Your task to perform on an android device: Go to notification settings Image 0: 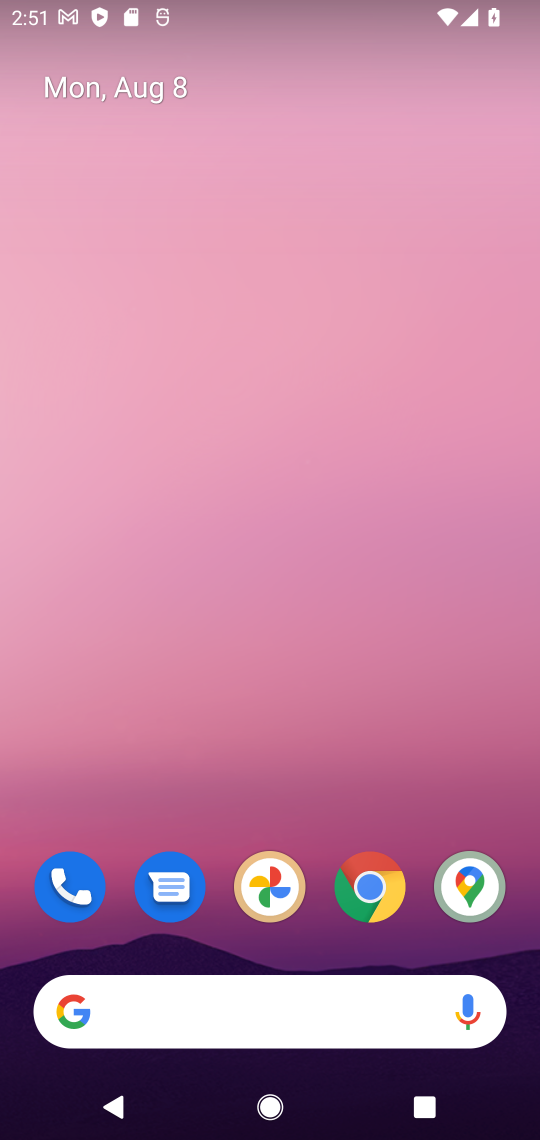
Step 0: drag from (276, 992) to (325, 442)
Your task to perform on an android device: Go to notification settings Image 1: 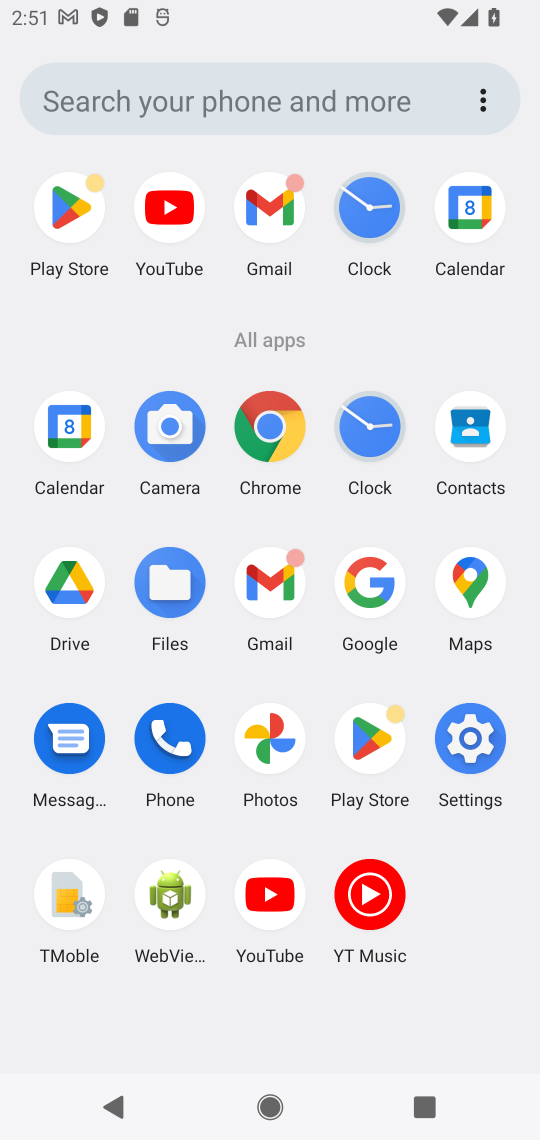
Step 1: click (465, 754)
Your task to perform on an android device: Go to notification settings Image 2: 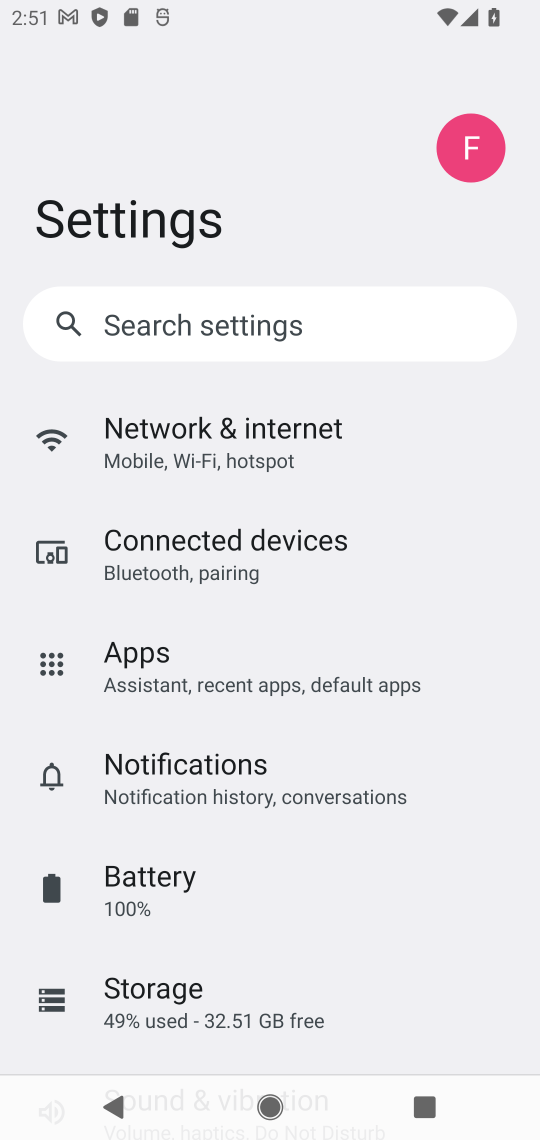
Step 2: click (197, 762)
Your task to perform on an android device: Go to notification settings Image 3: 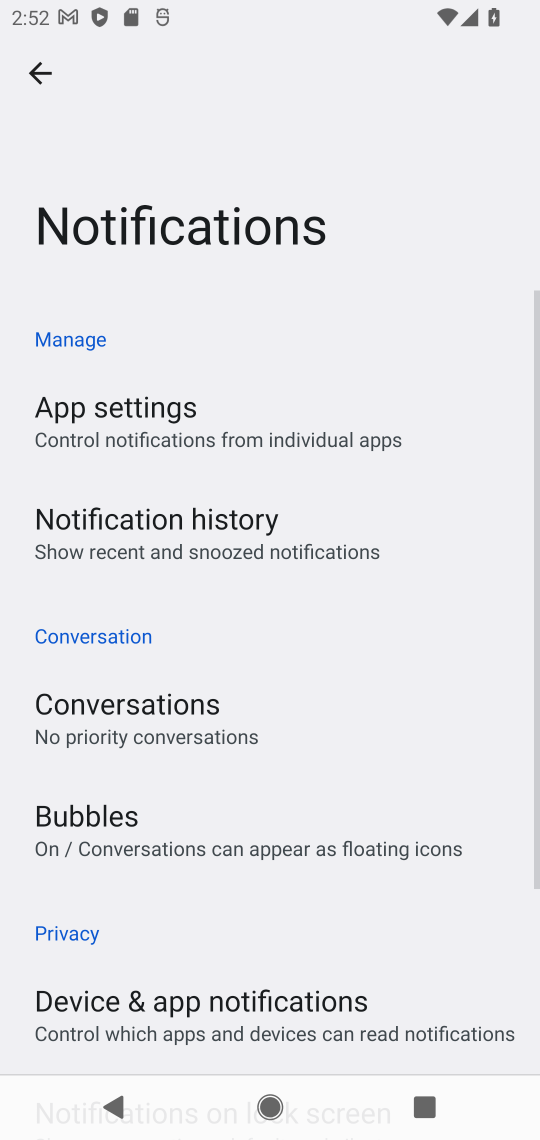
Step 3: task complete